Your task to perform on an android device: Open accessibility settings Image 0: 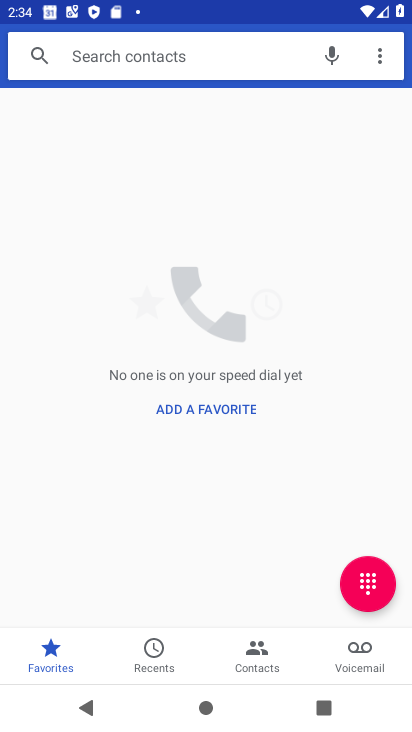
Step 0: press home button
Your task to perform on an android device: Open accessibility settings Image 1: 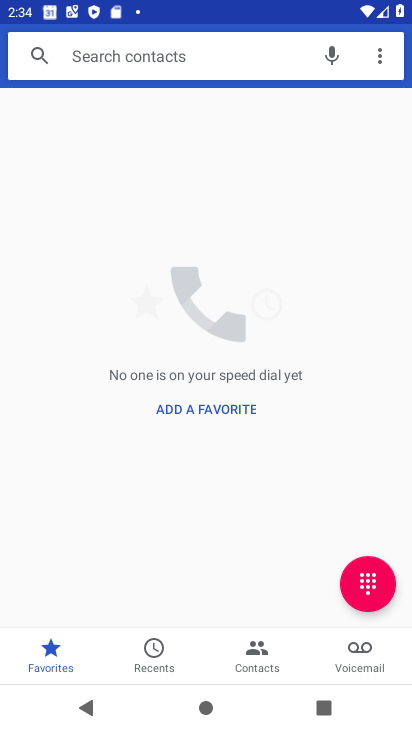
Step 1: press home button
Your task to perform on an android device: Open accessibility settings Image 2: 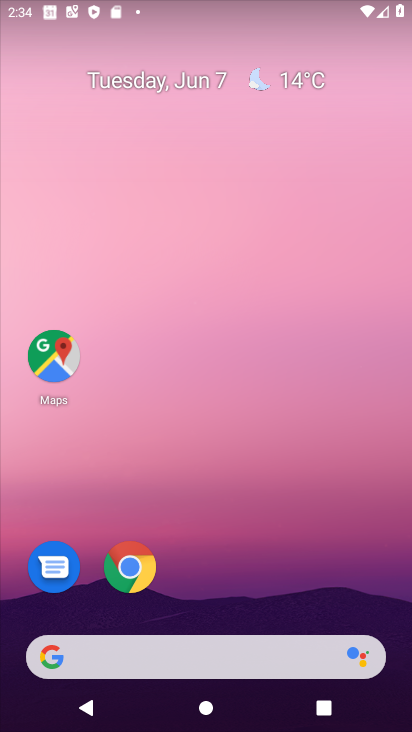
Step 2: press home button
Your task to perform on an android device: Open accessibility settings Image 3: 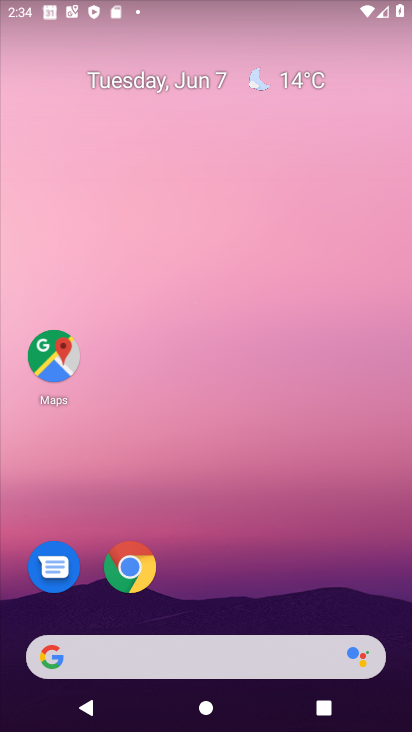
Step 3: drag from (218, 579) to (221, 136)
Your task to perform on an android device: Open accessibility settings Image 4: 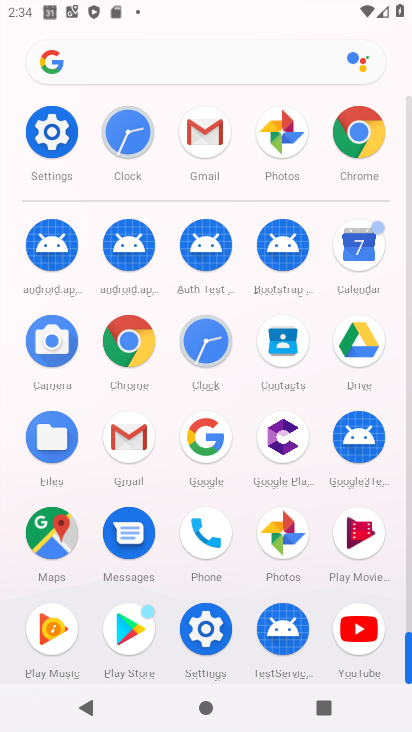
Step 4: click (59, 128)
Your task to perform on an android device: Open accessibility settings Image 5: 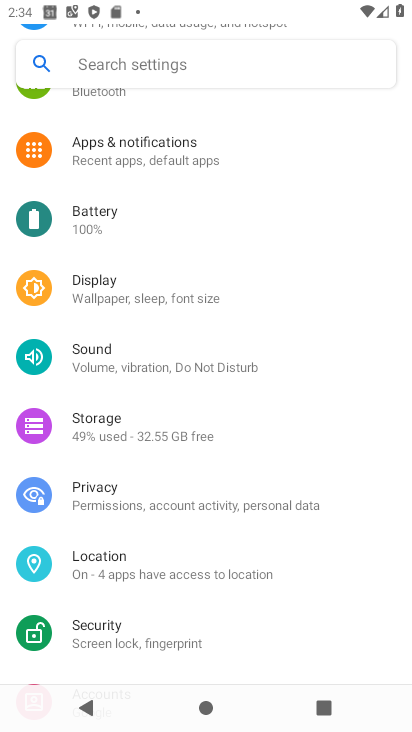
Step 5: drag from (146, 546) to (164, 305)
Your task to perform on an android device: Open accessibility settings Image 6: 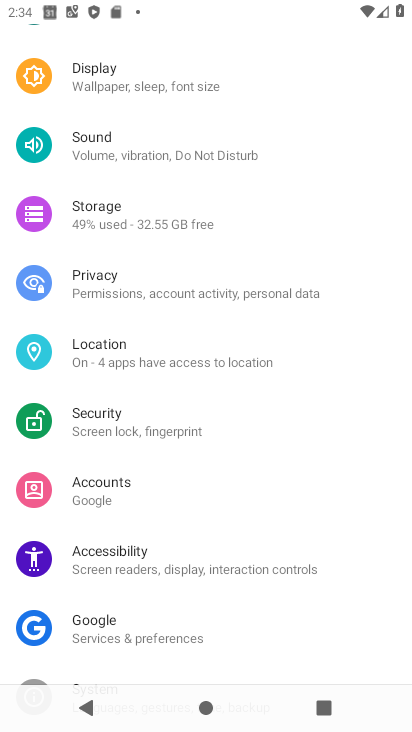
Step 6: click (154, 571)
Your task to perform on an android device: Open accessibility settings Image 7: 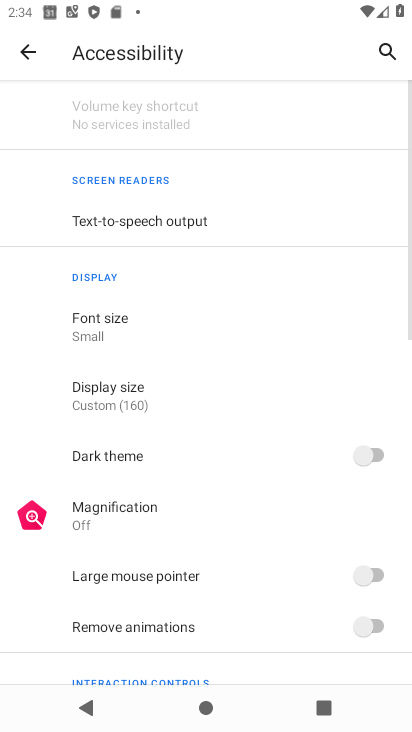
Step 7: task complete